Your task to perform on an android device: Open Android settings Image 0: 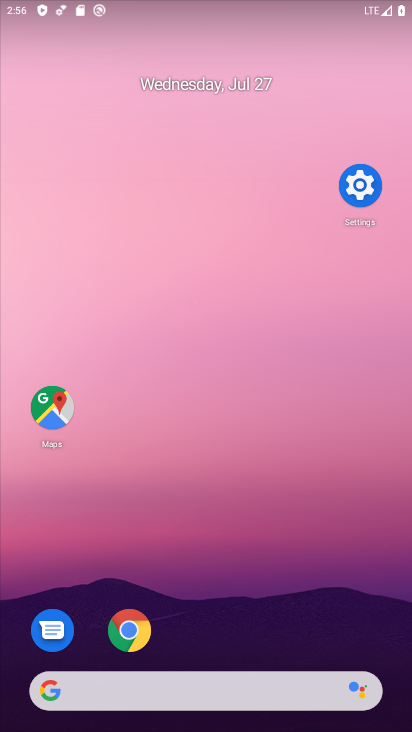
Step 0: press home button
Your task to perform on an android device: Open Android settings Image 1: 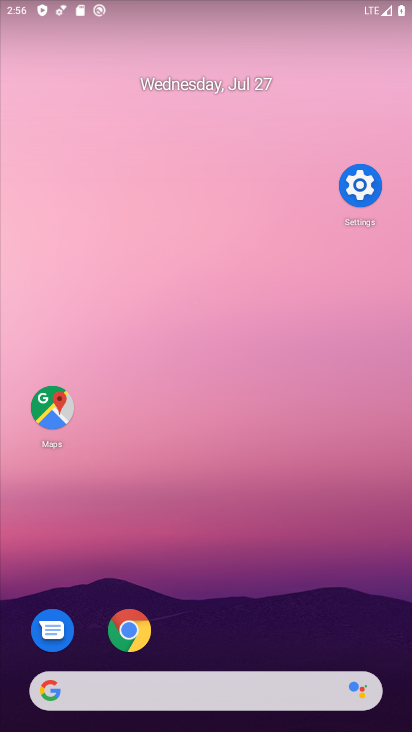
Step 1: drag from (245, 626) to (259, 229)
Your task to perform on an android device: Open Android settings Image 2: 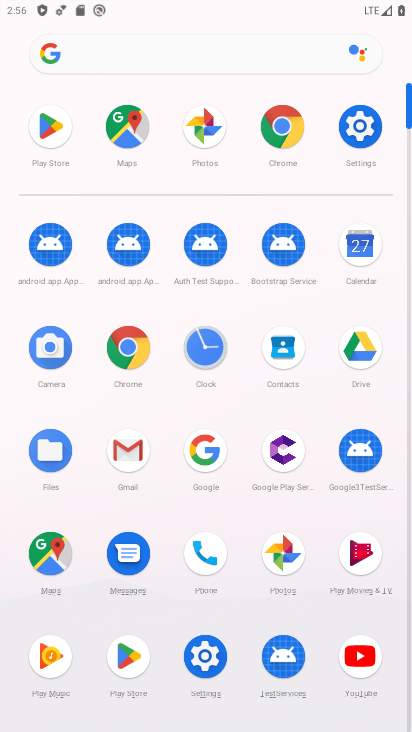
Step 2: click (354, 125)
Your task to perform on an android device: Open Android settings Image 3: 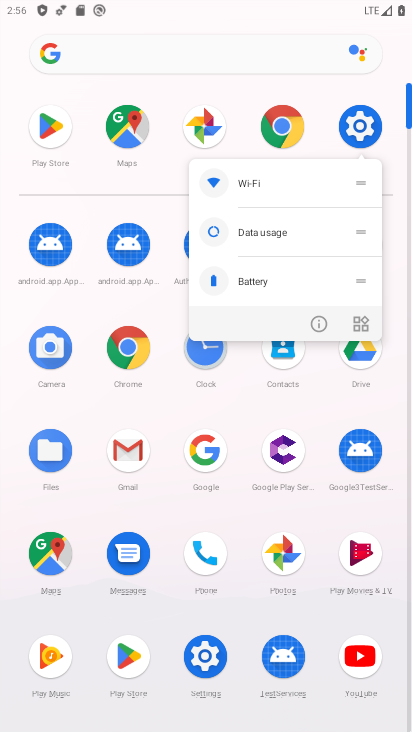
Step 3: click (357, 124)
Your task to perform on an android device: Open Android settings Image 4: 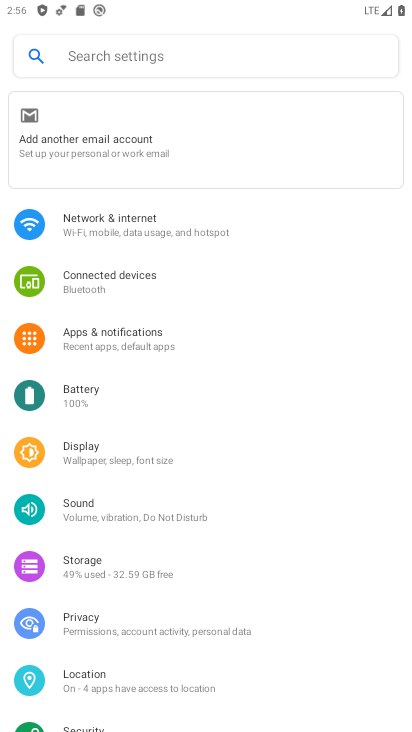
Step 4: task complete